Your task to perform on an android device: Open privacy settings Image 0: 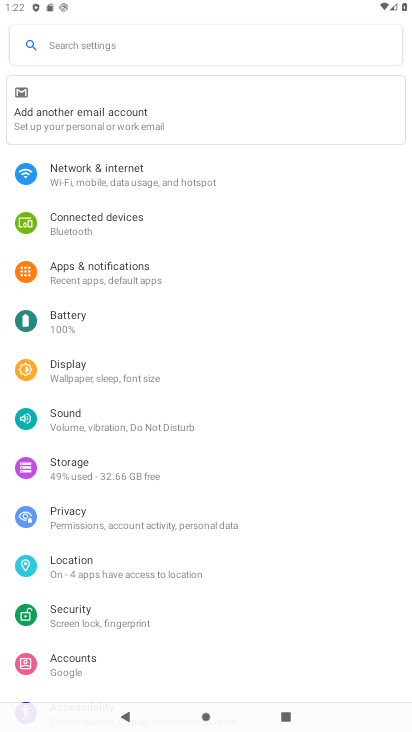
Step 0: click (69, 515)
Your task to perform on an android device: Open privacy settings Image 1: 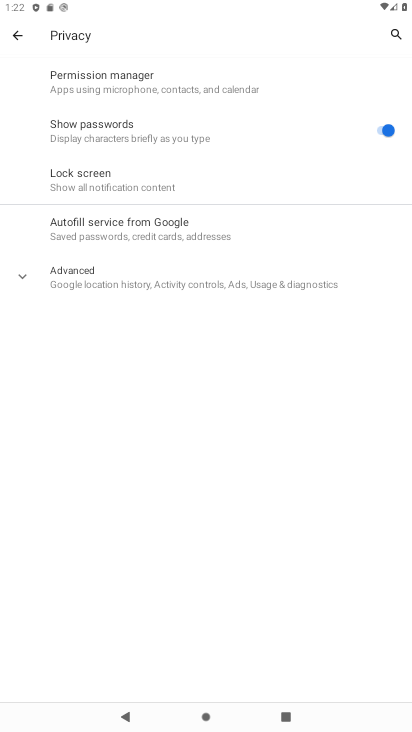
Step 1: task complete